Your task to perform on an android device: Show me the alarms in the clock app Image 0: 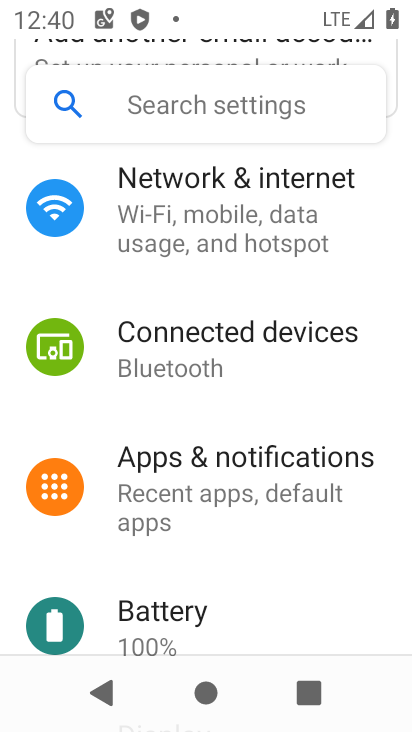
Step 0: press home button
Your task to perform on an android device: Show me the alarms in the clock app Image 1: 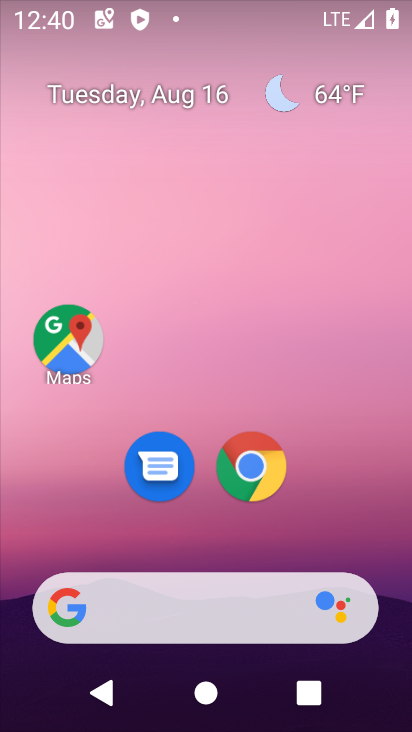
Step 1: drag from (235, 538) to (251, 27)
Your task to perform on an android device: Show me the alarms in the clock app Image 2: 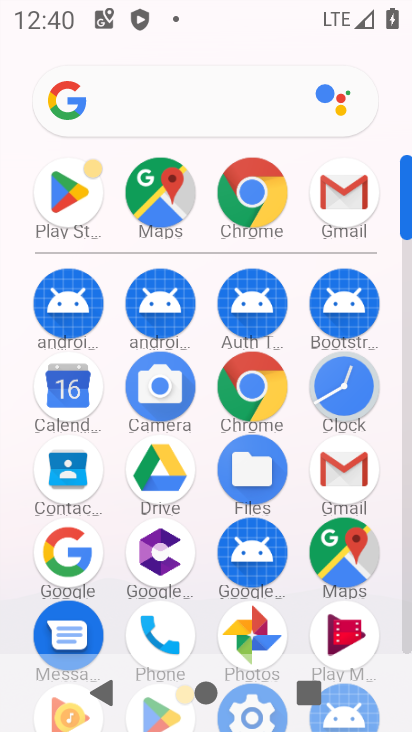
Step 2: click (339, 384)
Your task to perform on an android device: Show me the alarms in the clock app Image 3: 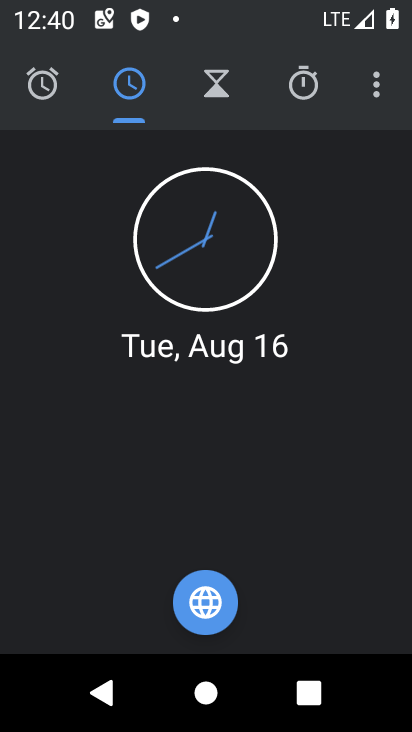
Step 3: click (54, 84)
Your task to perform on an android device: Show me the alarms in the clock app Image 4: 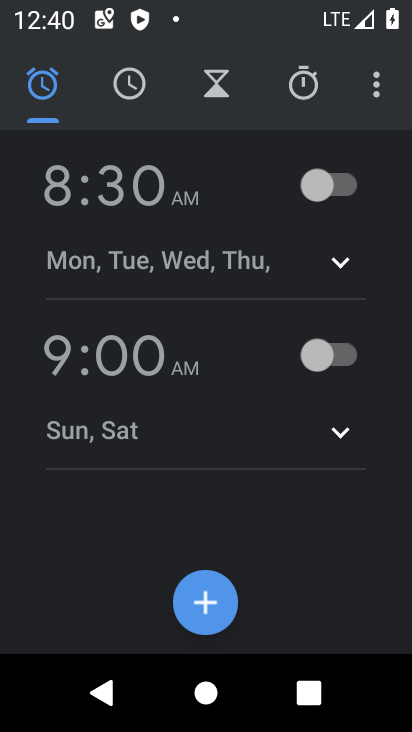
Step 4: click (336, 186)
Your task to perform on an android device: Show me the alarms in the clock app Image 5: 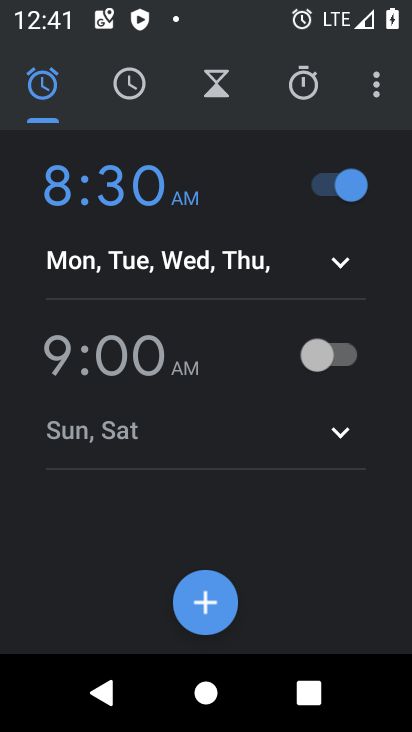
Step 5: task complete